Your task to perform on an android device: change notification settings in the gmail app Image 0: 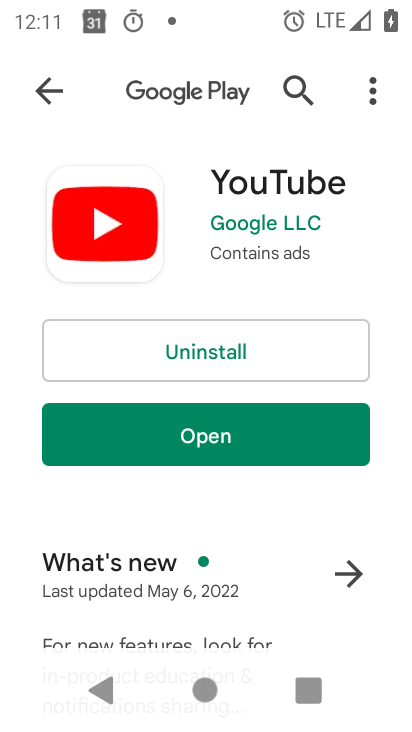
Step 0: press home button
Your task to perform on an android device: change notification settings in the gmail app Image 1: 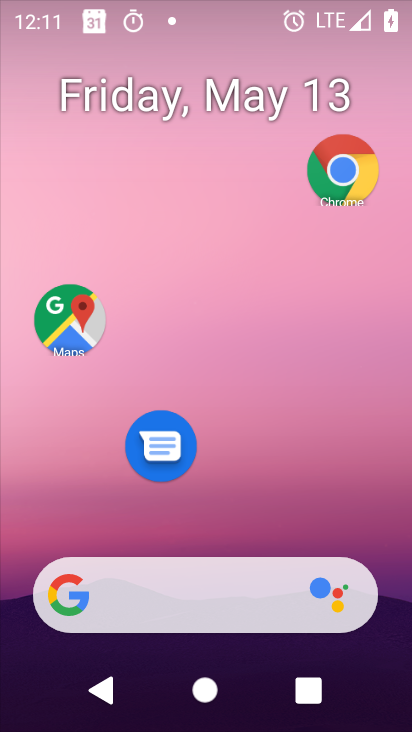
Step 1: drag from (308, 627) to (300, 9)
Your task to perform on an android device: change notification settings in the gmail app Image 2: 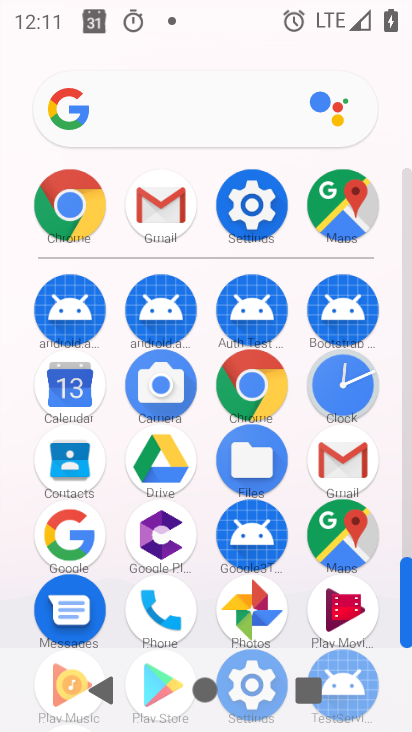
Step 2: click (346, 449)
Your task to perform on an android device: change notification settings in the gmail app Image 3: 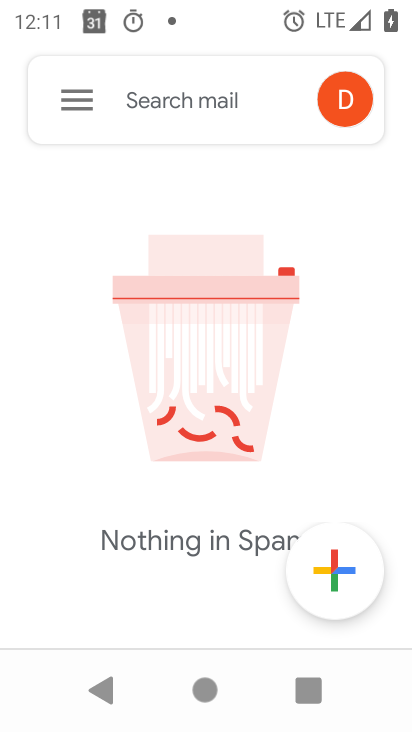
Step 3: click (75, 96)
Your task to perform on an android device: change notification settings in the gmail app Image 4: 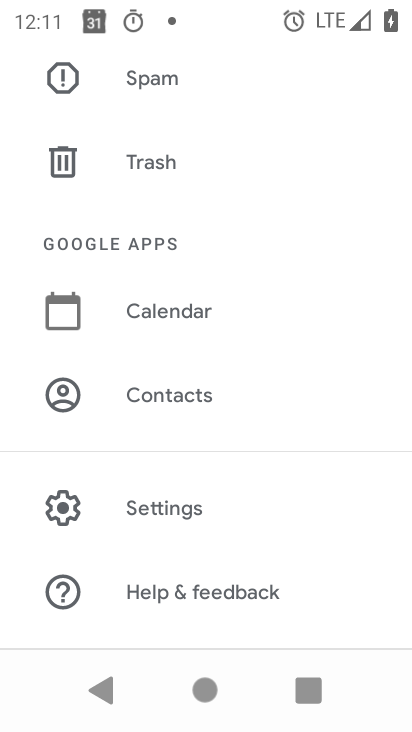
Step 4: click (185, 516)
Your task to perform on an android device: change notification settings in the gmail app Image 5: 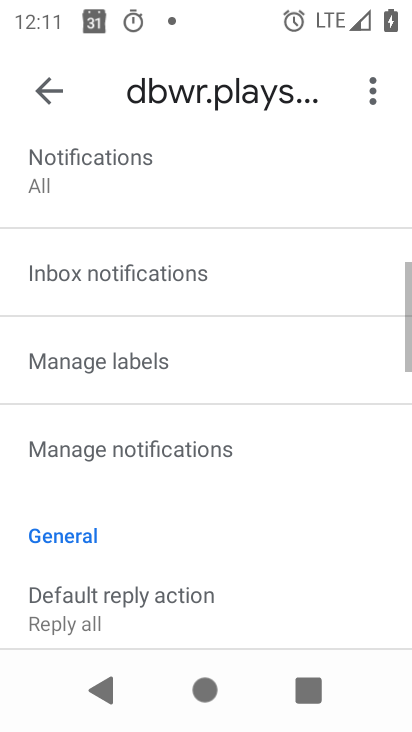
Step 5: drag from (192, 611) to (208, 478)
Your task to perform on an android device: change notification settings in the gmail app Image 6: 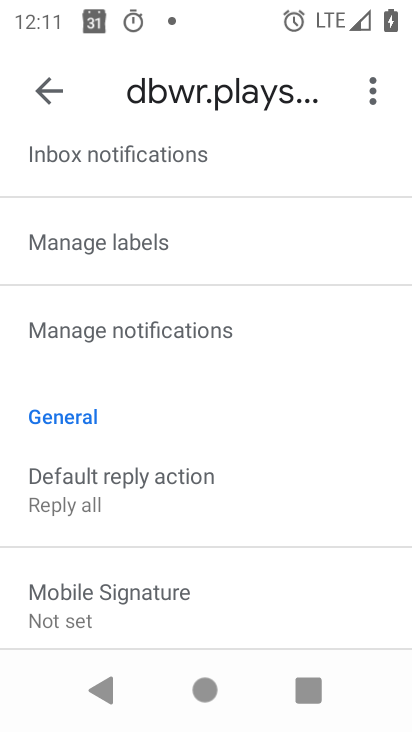
Step 6: click (192, 345)
Your task to perform on an android device: change notification settings in the gmail app Image 7: 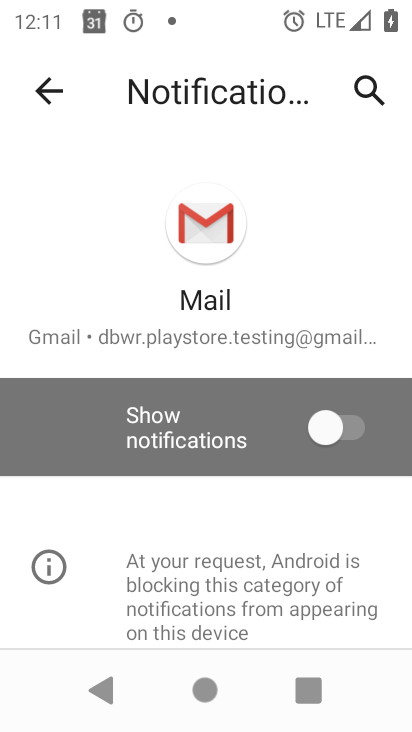
Step 7: task complete